Your task to perform on an android device: Go to Google maps Image 0: 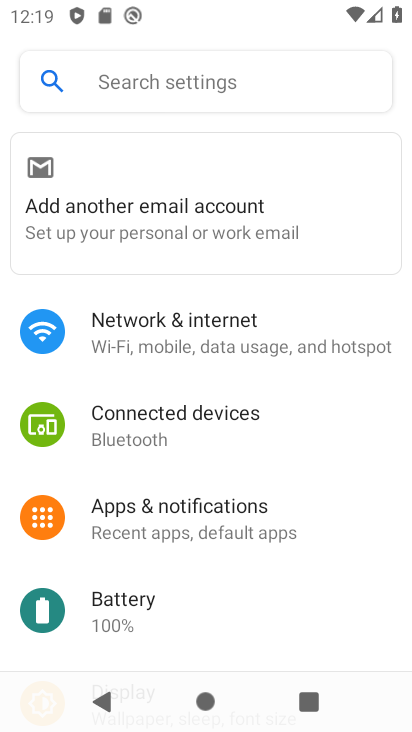
Step 0: press home button
Your task to perform on an android device: Go to Google maps Image 1: 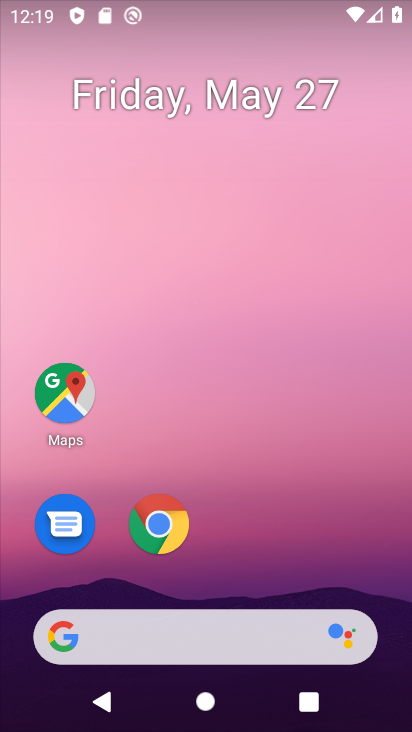
Step 1: click (70, 383)
Your task to perform on an android device: Go to Google maps Image 2: 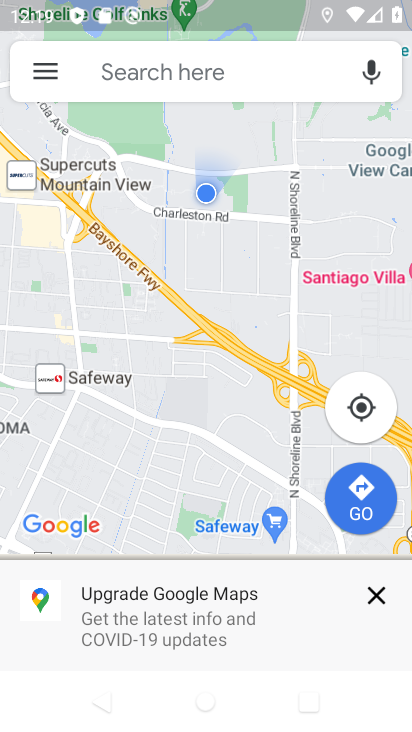
Step 2: task complete